Your task to perform on an android device: open a bookmark in the chrome app Image 0: 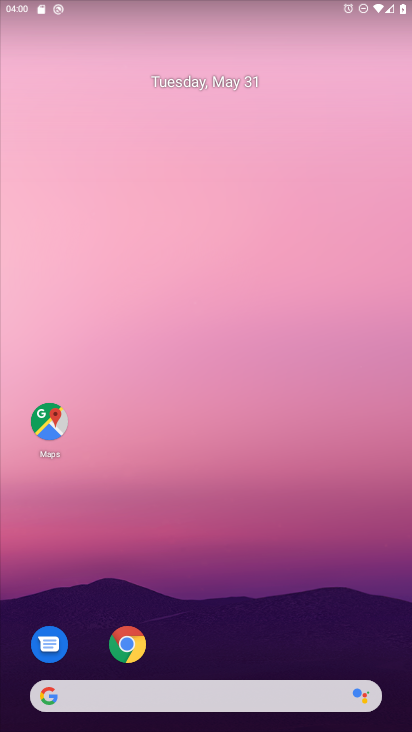
Step 0: drag from (297, 624) to (283, 160)
Your task to perform on an android device: open a bookmark in the chrome app Image 1: 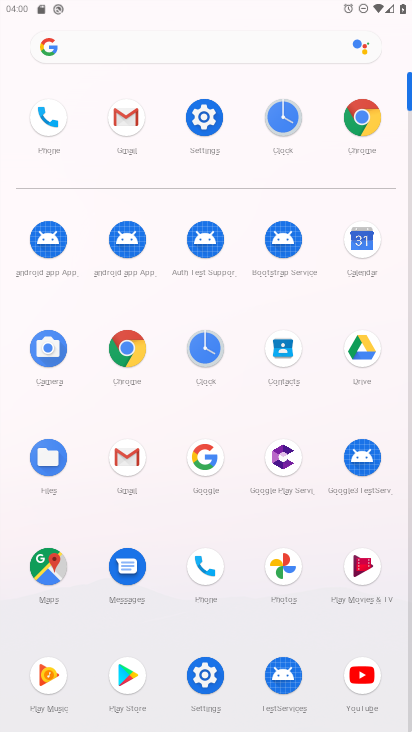
Step 1: click (129, 353)
Your task to perform on an android device: open a bookmark in the chrome app Image 2: 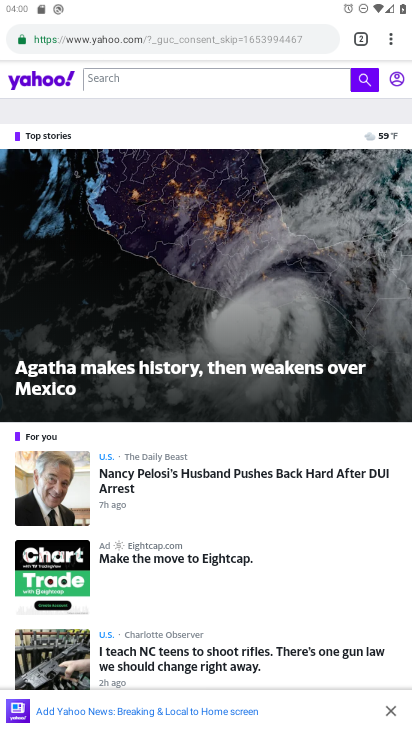
Step 2: drag from (390, 36) to (244, 151)
Your task to perform on an android device: open a bookmark in the chrome app Image 3: 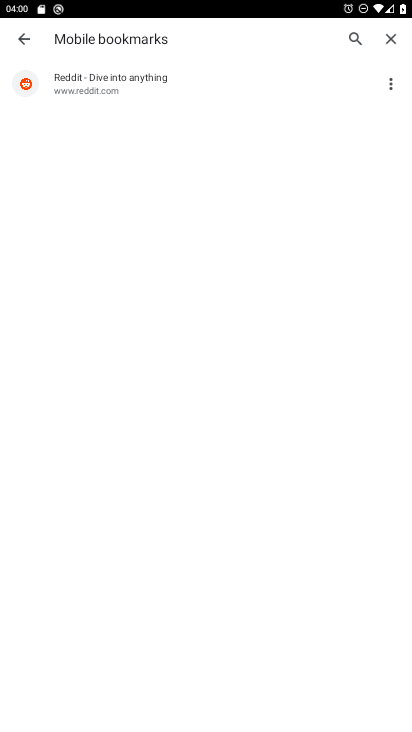
Step 3: click (127, 87)
Your task to perform on an android device: open a bookmark in the chrome app Image 4: 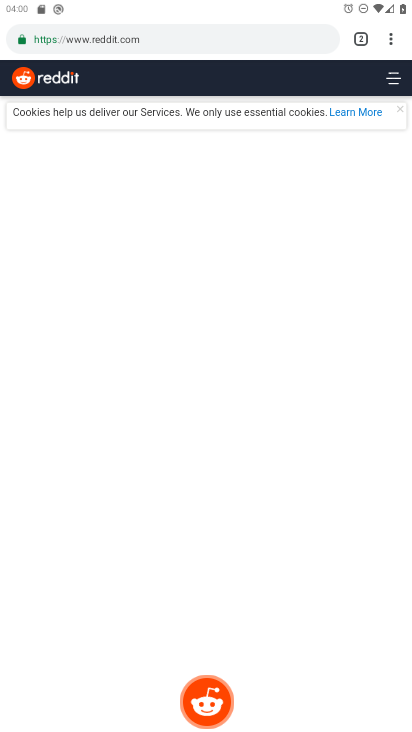
Step 4: task complete